Your task to perform on an android device: Open Google Chrome and open the bookmarks view Image 0: 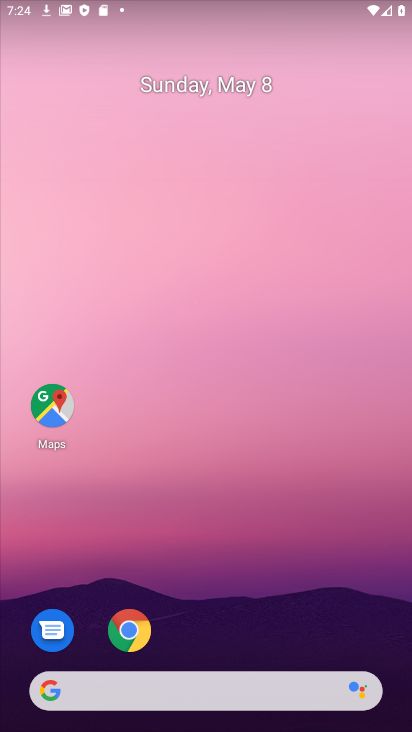
Step 0: drag from (238, 635) to (104, 195)
Your task to perform on an android device: Open Google Chrome and open the bookmarks view Image 1: 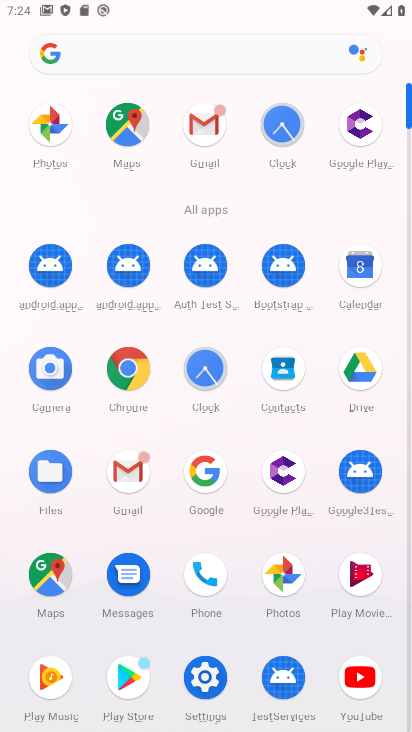
Step 1: click (138, 360)
Your task to perform on an android device: Open Google Chrome and open the bookmarks view Image 2: 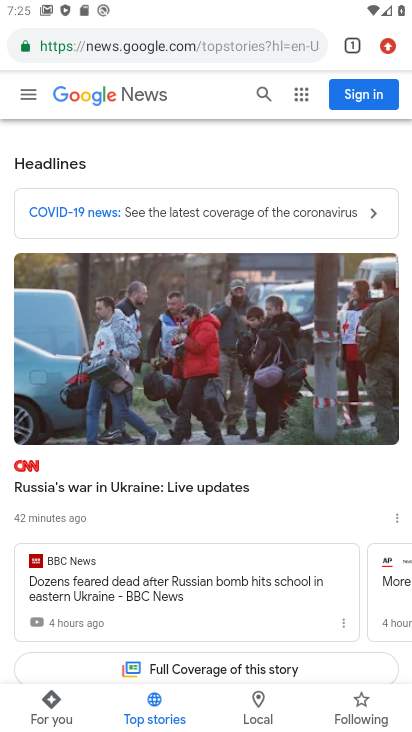
Step 2: task complete